Your task to perform on an android device: Open Chrome and go to the settings page Image 0: 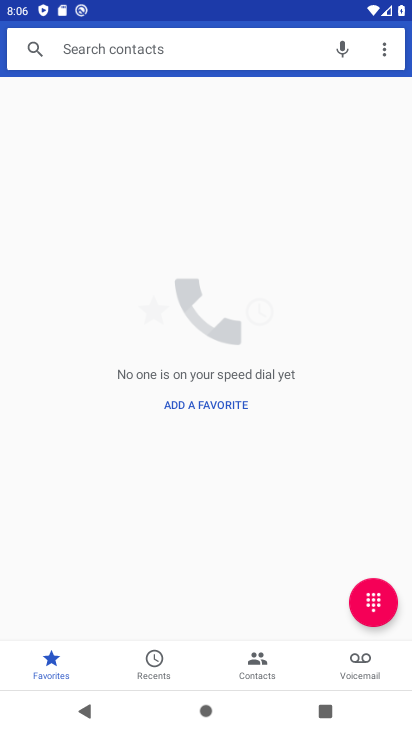
Step 0: press home button
Your task to perform on an android device: Open Chrome and go to the settings page Image 1: 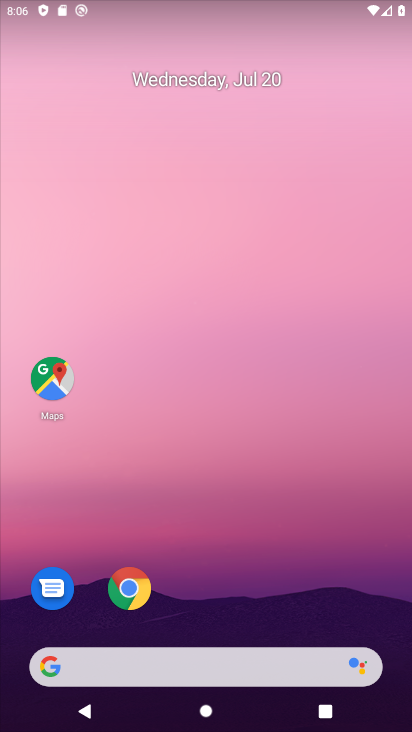
Step 1: click (122, 592)
Your task to perform on an android device: Open Chrome and go to the settings page Image 2: 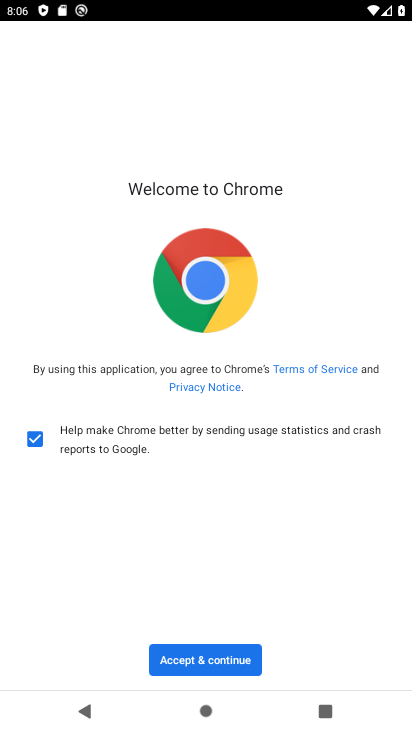
Step 2: click (195, 651)
Your task to perform on an android device: Open Chrome and go to the settings page Image 3: 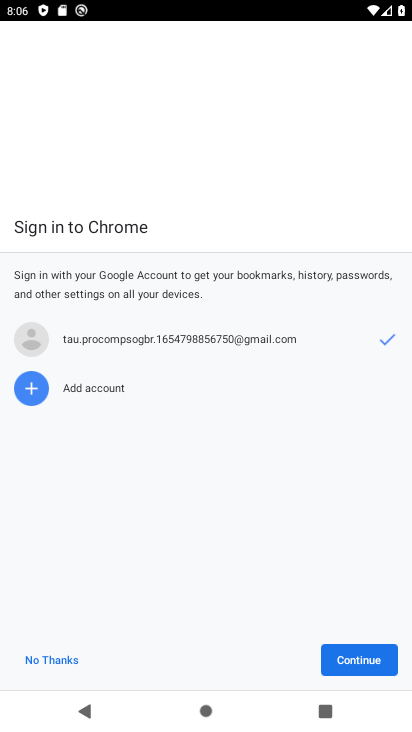
Step 3: click (195, 651)
Your task to perform on an android device: Open Chrome and go to the settings page Image 4: 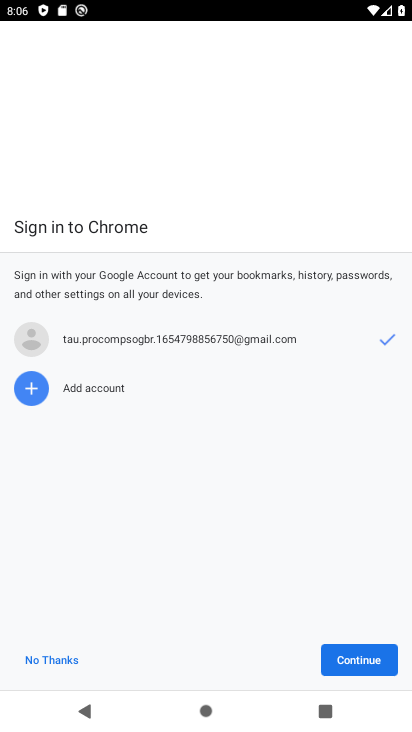
Step 4: click (398, 655)
Your task to perform on an android device: Open Chrome and go to the settings page Image 5: 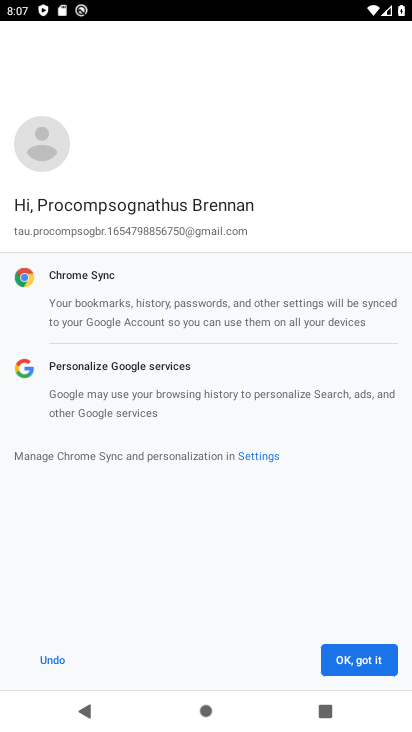
Step 5: click (362, 647)
Your task to perform on an android device: Open Chrome and go to the settings page Image 6: 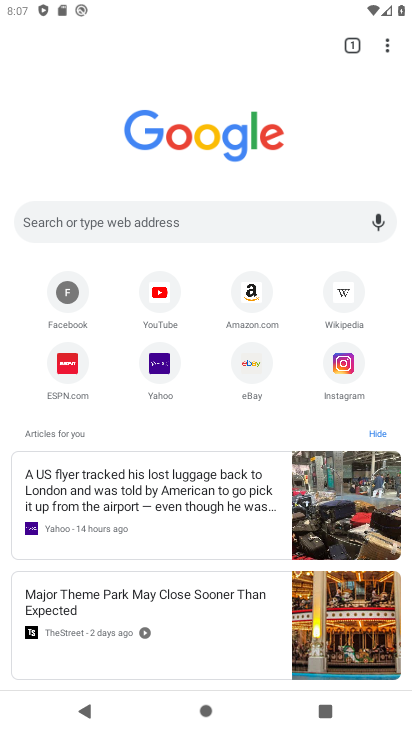
Step 6: click (398, 39)
Your task to perform on an android device: Open Chrome and go to the settings page Image 7: 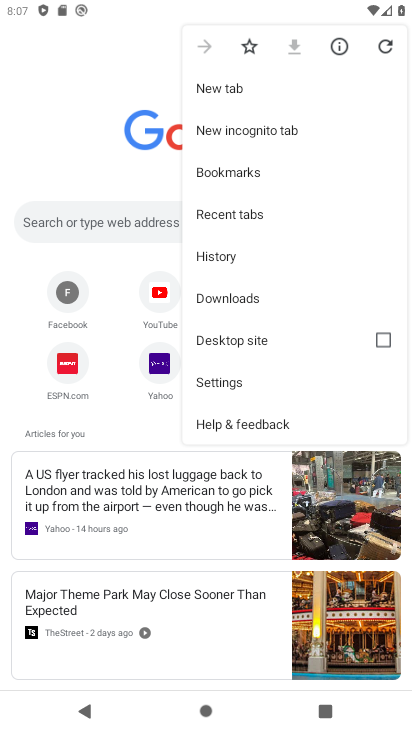
Step 7: click (207, 375)
Your task to perform on an android device: Open Chrome and go to the settings page Image 8: 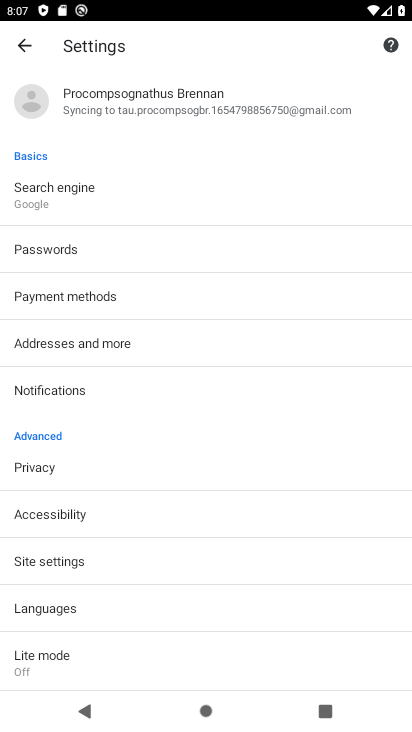
Step 8: task complete